Your task to perform on an android device: Open Google Maps Image 0: 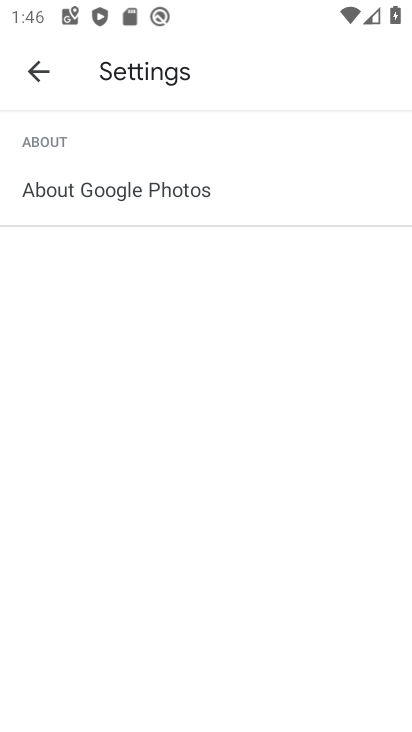
Step 0: press home button
Your task to perform on an android device: Open Google Maps Image 1: 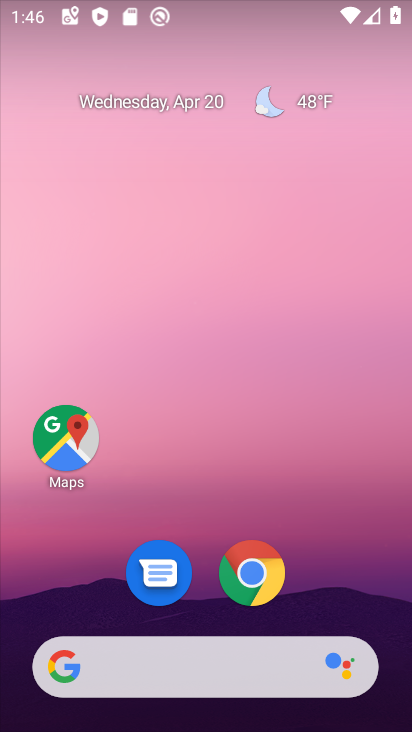
Step 1: drag from (151, 658) to (337, 22)
Your task to perform on an android device: Open Google Maps Image 2: 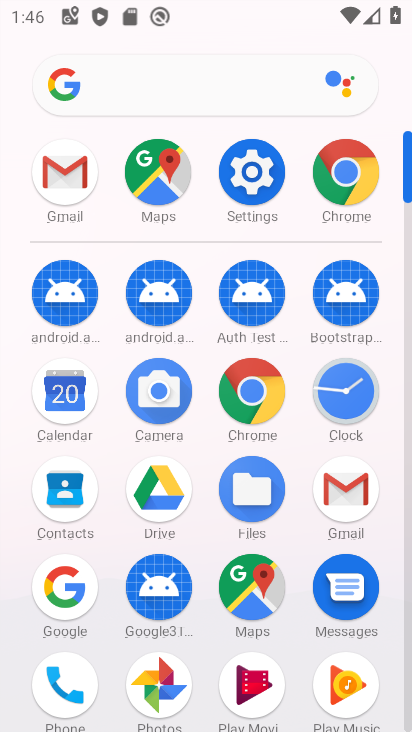
Step 2: click (161, 173)
Your task to perform on an android device: Open Google Maps Image 3: 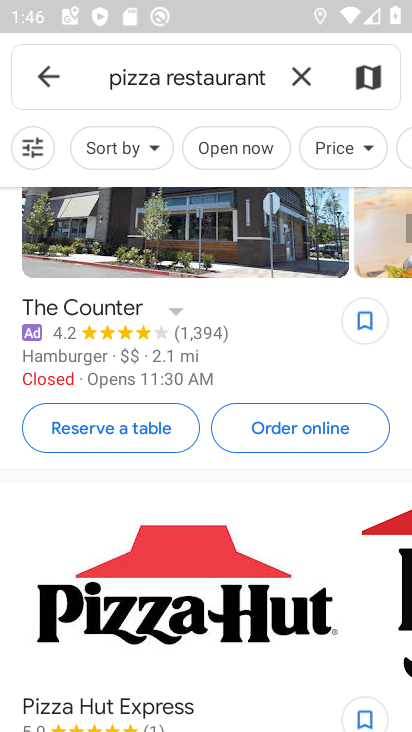
Step 3: click (49, 82)
Your task to perform on an android device: Open Google Maps Image 4: 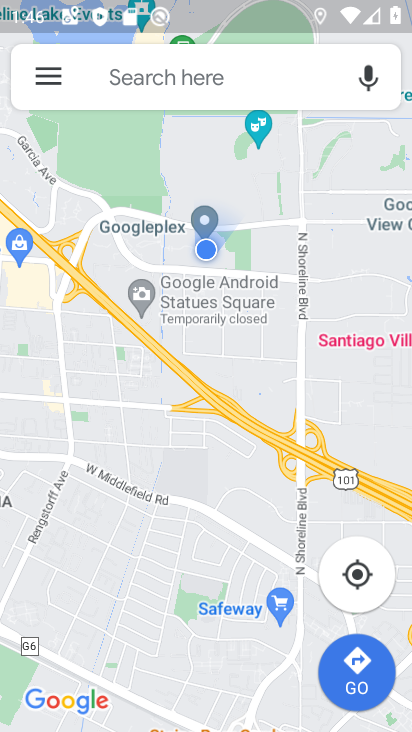
Step 4: task complete